Your task to perform on an android device: open a bookmark in the chrome app Image 0: 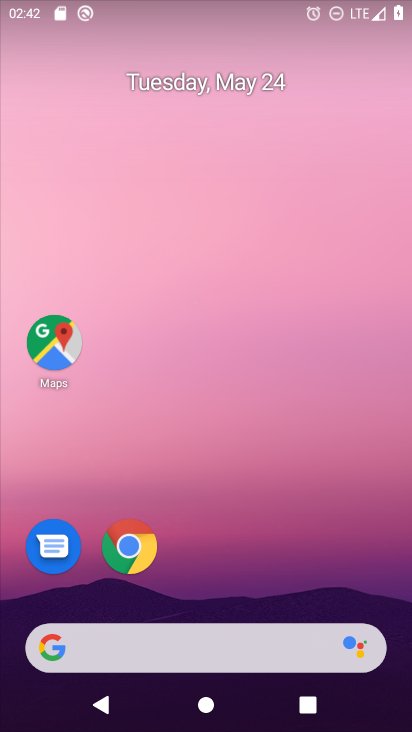
Step 0: press home button
Your task to perform on an android device: open a bookmark in the chrome app Image 1: 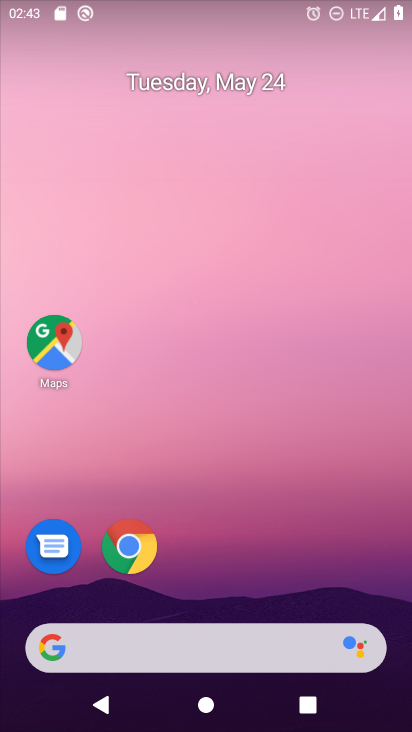
Step 1: drag from (161, 629) to (193, 80)
Your task to perform on an android device: open a bookmark in the chrome app Image 2: 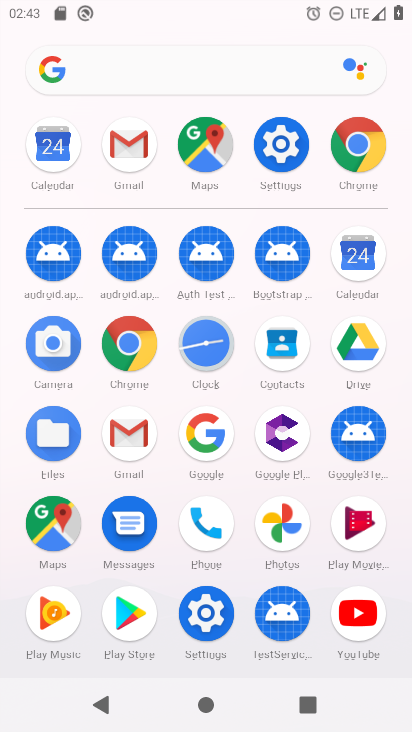
Step 2: click (141, 347)
Your task to perform on an android device: open a bookmark in the chrome app Image 3: 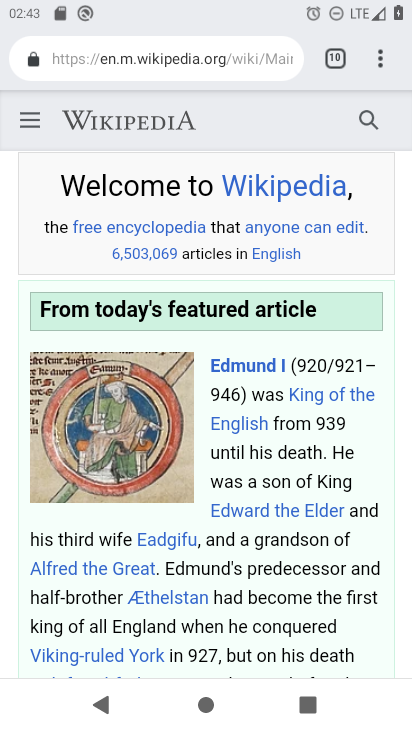
Step 3: task complete